Your task to perform on an android device: check the backup settings in the google photos Image 0: 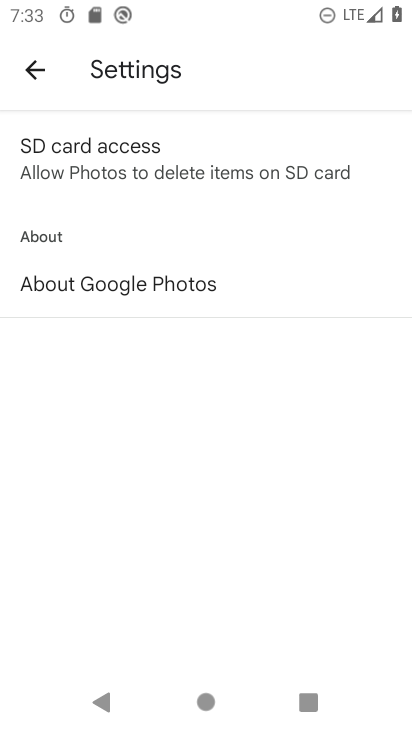
Step 0: press home button
Your task to perform on an android device: check the backup settings in the google photos Image 1: 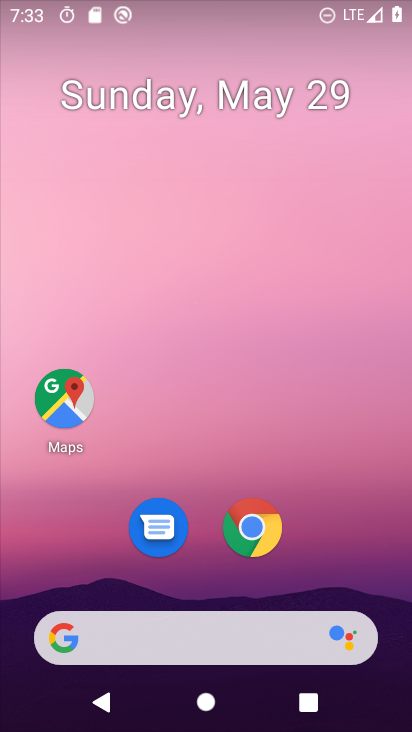
Step 1: drag from (405, 640) to (272, 44)
Your task to perform on an android device: check the backup settings in the google photos Image 2: 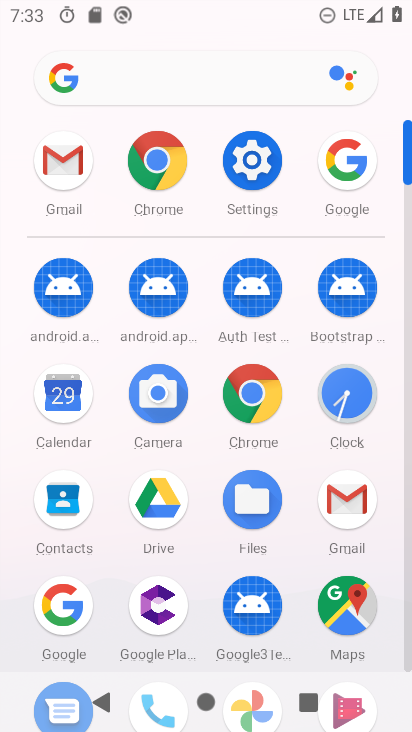
Step 2: drag from (221, 627) to (214, 131)
Your task to perform on an android device: check the backup settings in the google photos Image 3: 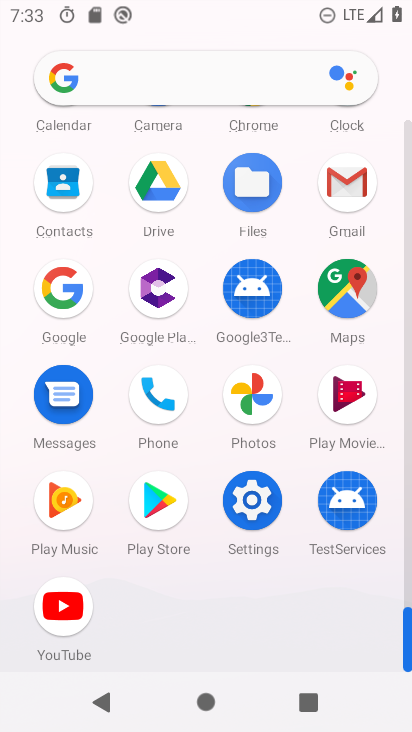
Step 3: click (242, 384)
Your task to perform on an android device: check the backup settings in the google photos Image 4: 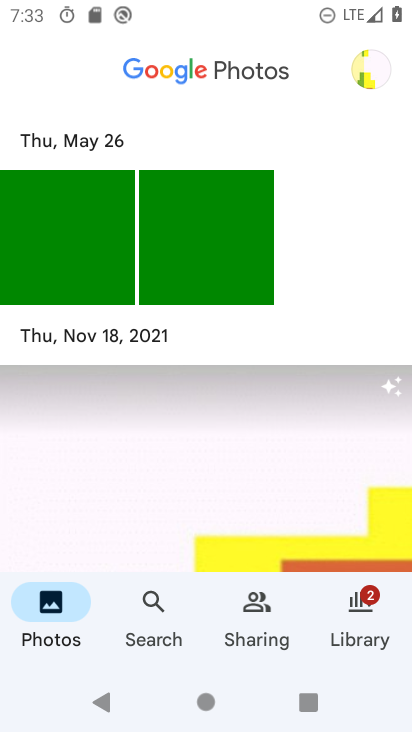
Step 4: click (366, 65)
Your task to perform on an android device: check the backup settings in the google photos Image 5: 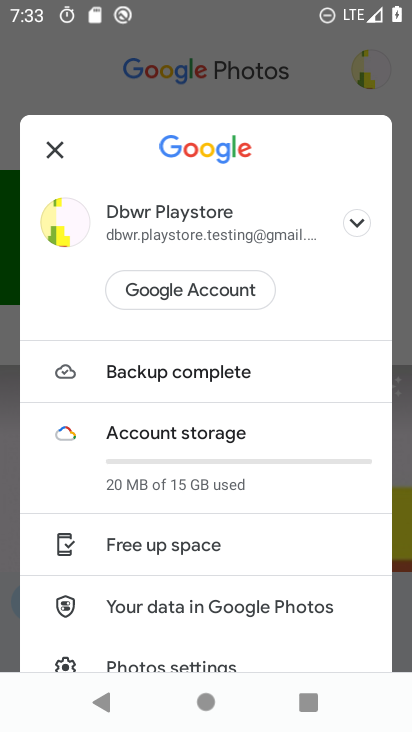
Step 5: click (204, 381)
Your task to perform on an android device: check the backup settings in the google photos Image 6: 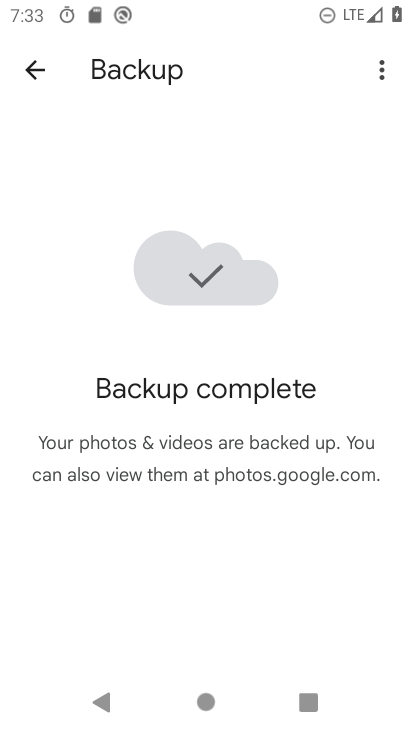
Step 6: task complete